Your task to perform on an android device: Go to location settings Image 0: 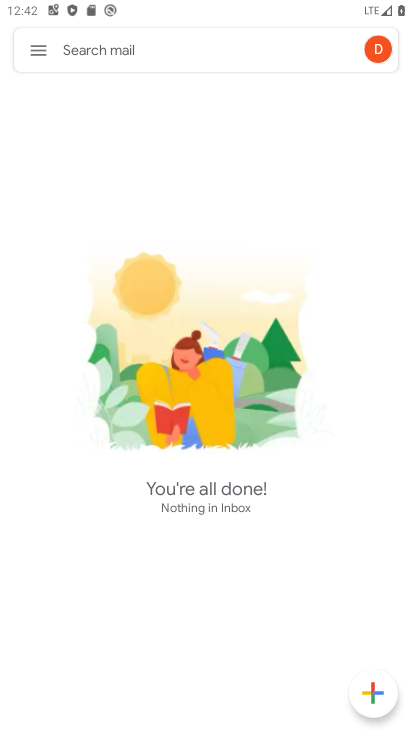
Step 0: press home button
Your task to perform on an android device: Go to location settings Image 1: 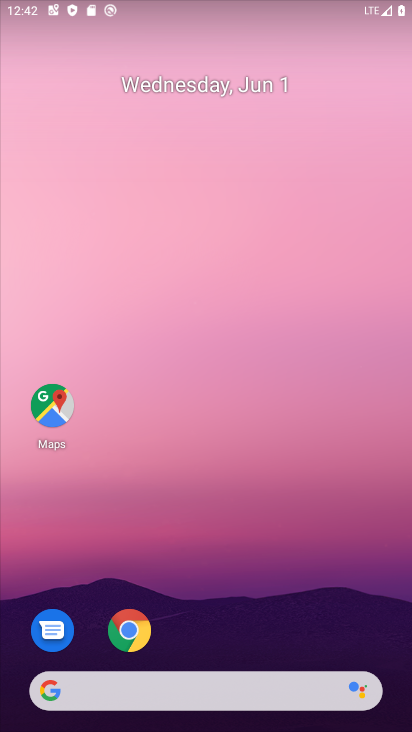
Step 1: drag from (304, 620) to (370, 187)
Your task to perform on an android device: Go to location settings Image 2: 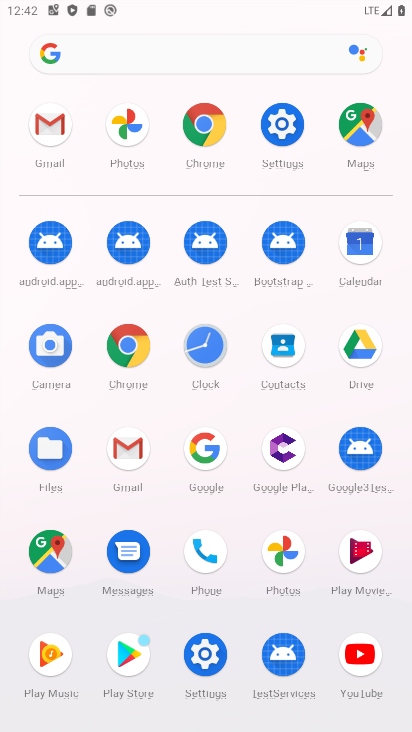
Step 2: click (289, 117)
Your task to perform on an android device: Go to location settings Image 3: 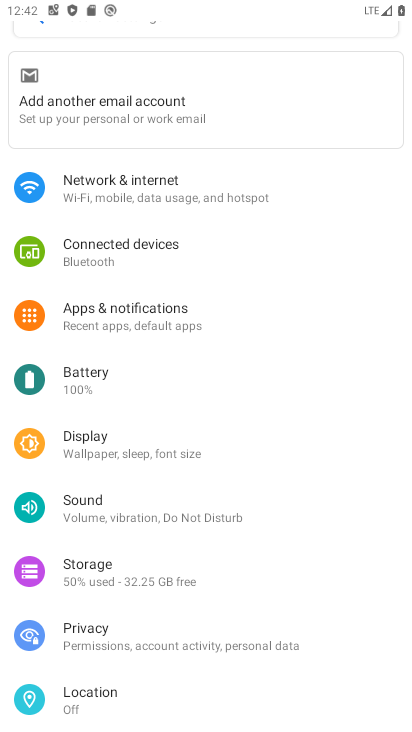
Step 3: click (134, 705)
Your task to perform on an android device: Go to location settings Image 4: 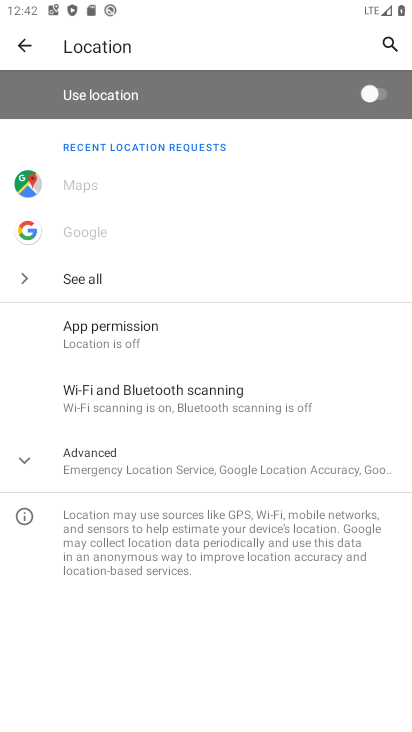
Step 4: task complete